Your task to perform on an android device: find which apps use the phone's location Image 0: 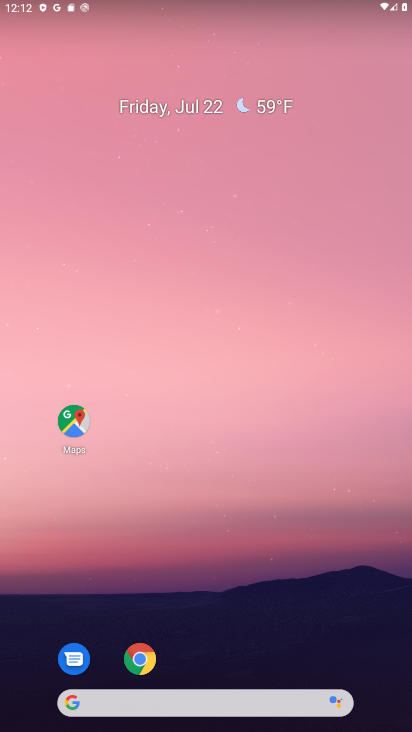
Step 0: drag from (224, 543) to (176, 44)
Your task to perform on an android device: find which apps use the phone's location Image 1: 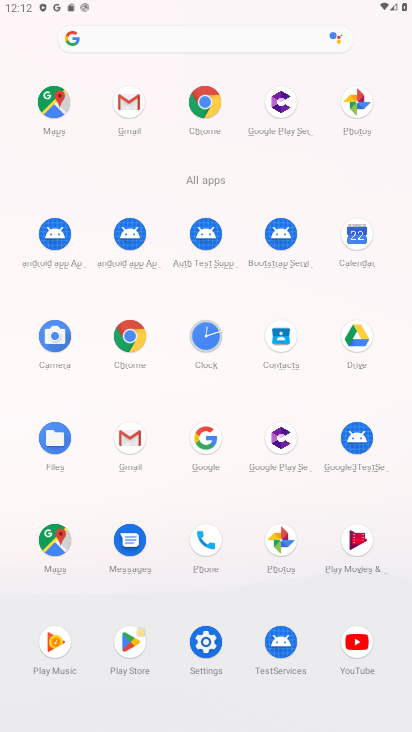
Step 1: click (212, 635)
Your task to perform on an android device: find which apps use the phone's location Image 2: 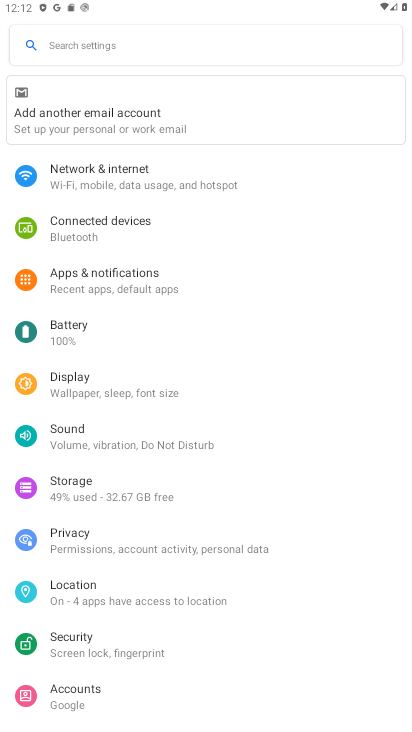
Step 2: click (121, 593)
Your task to perform on an android device: find which apps use the phone's location Image 3: 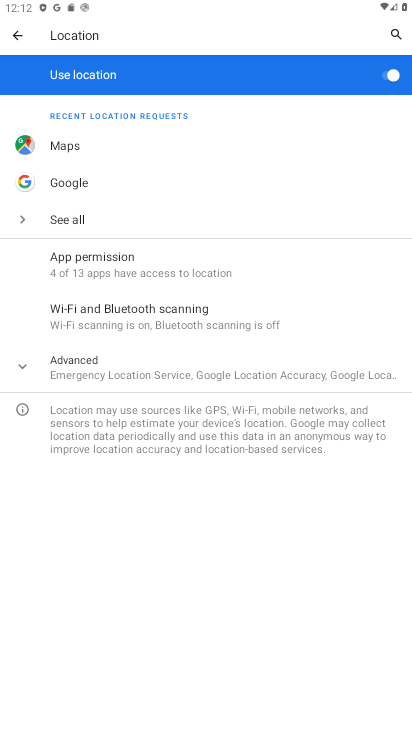
Step 3: click (68, 263)
Your task to perform on an android device: find which apps use the phone's location Image 4: 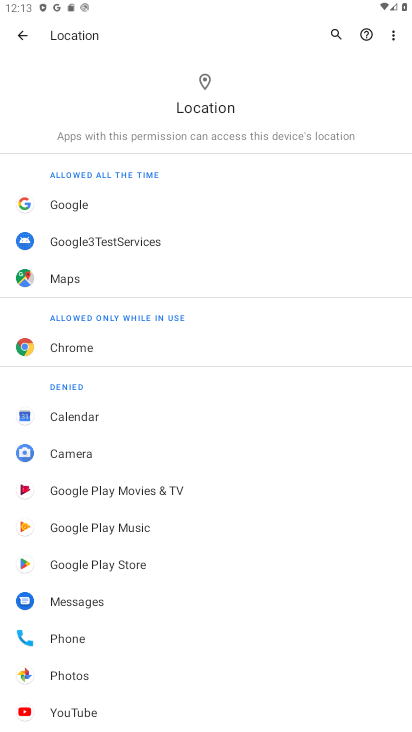
Step 4: task complete